Your task to perform on an android device: What's the weather going to be tomorrow? Image 0: 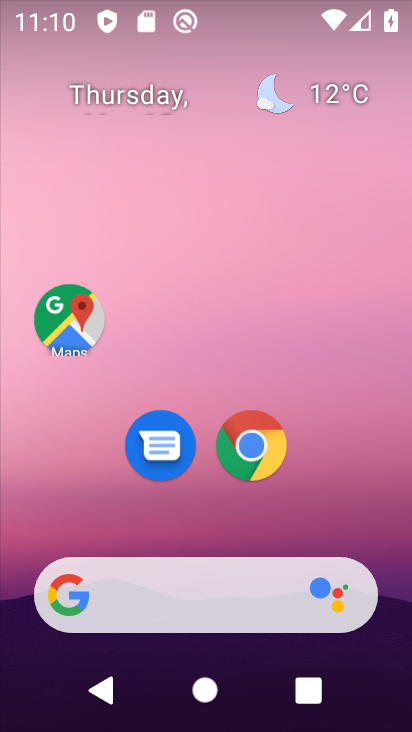
Step 0: click (333, 96)
Your task to perform on an android device: What's the weather going to be tomorrow? Image 1: 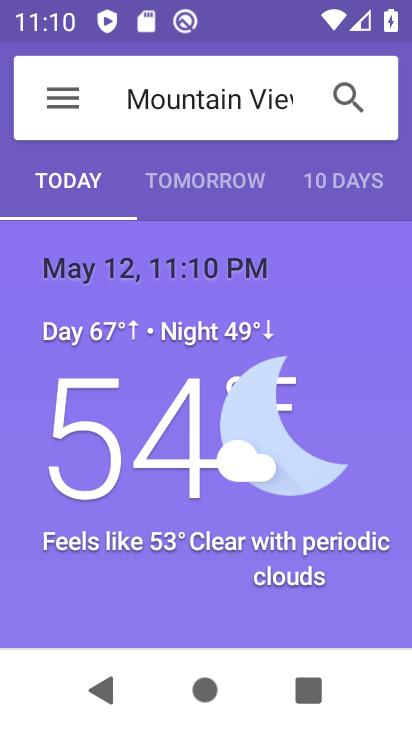
Step 1: click (219, 194)
Your task to perform on an android device: What's the weather going to be tomorrow? Image 2: 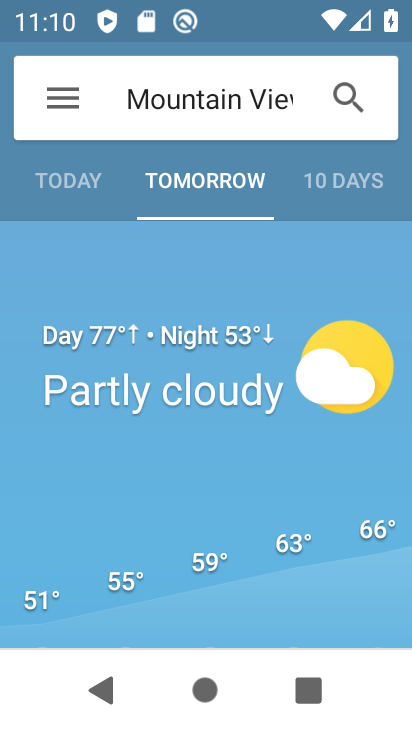
Step 2: task complete